Your task to perform on an android device: change the clock display to digital Image 0: 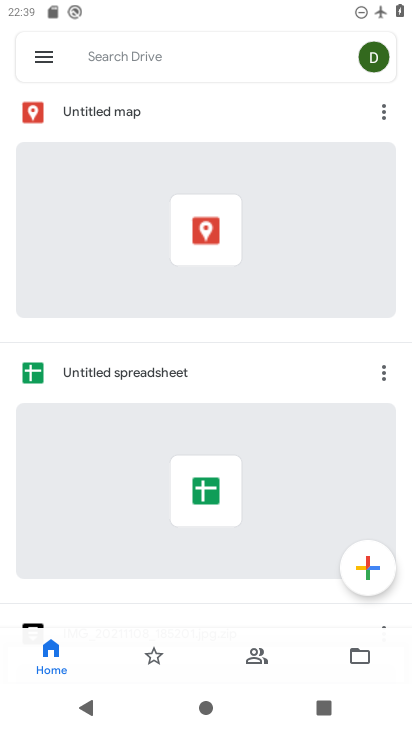
Step 0: press home button
Your task to perform on an android device: change the clock display to digital Image 1: 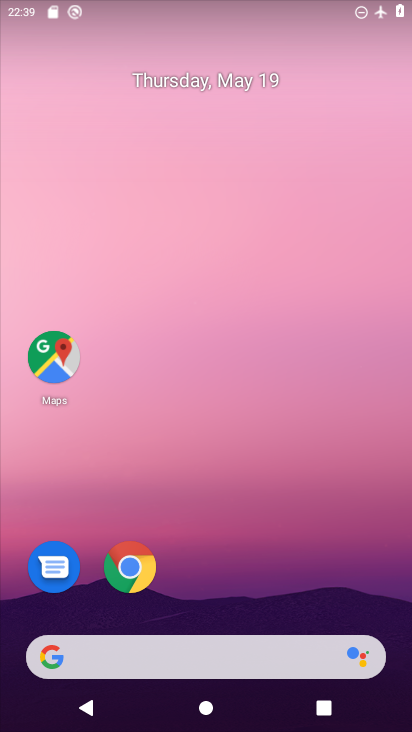
Step 1: drag from (210, 618) to (207, 17)
Your task to perform on an android device: change the clock display to digital Image 2: 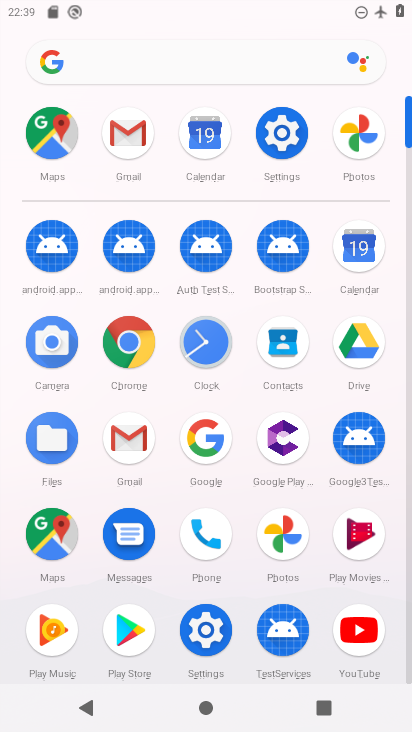
Step 2: click (206, 341)
Your task to perform on an android device: change the clock display to digital Image 3: 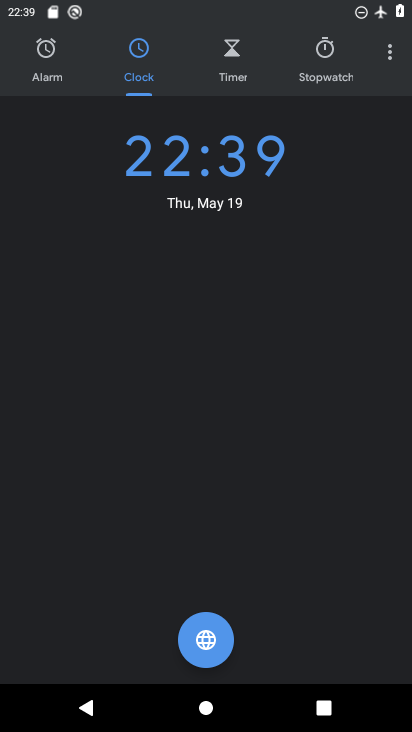
Step 3: click (394, 50)
Your task to perform on an android device: change the clock display to digital Image 4: 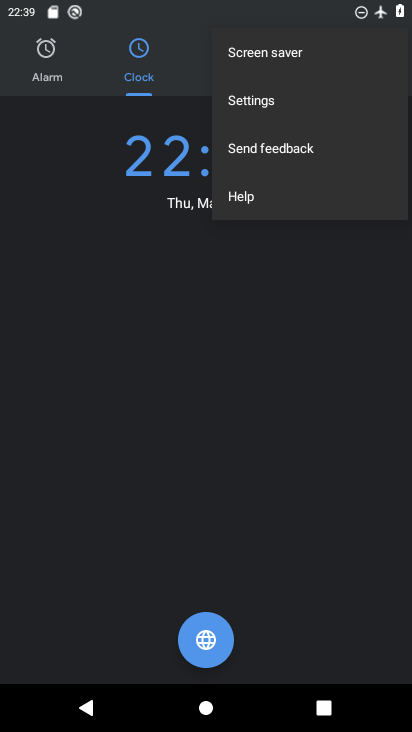
Step 4: click (269, 111)
Your task to perform on an android device: change the clock display to digital Image 5: 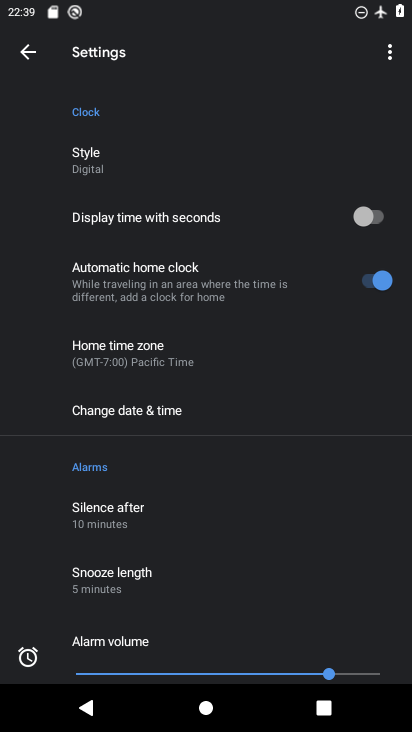
Step 5: click (104, 152)
Your task to perform on an android device: change the clock display to digital Image 6: 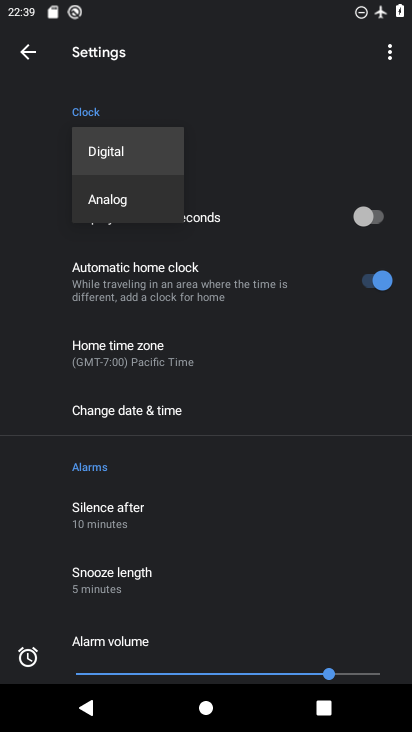
Step 6: click (136, 151)
Your task to perform on an android device: change the clock display to digital Image 7: 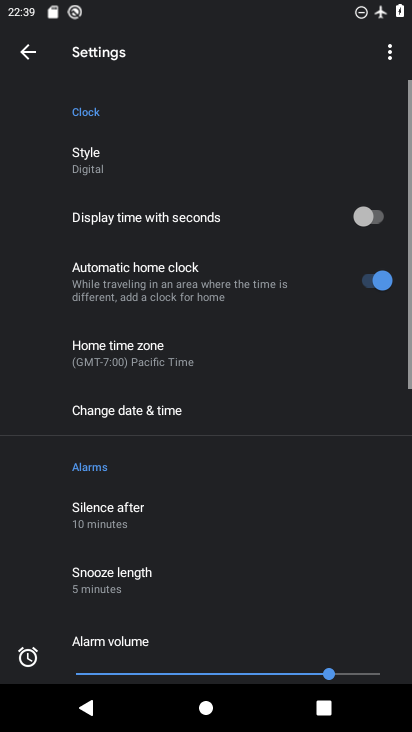
Step 7: task complete